Your task to perform on an android device: choose inbox layout in the gmail app Image 0: 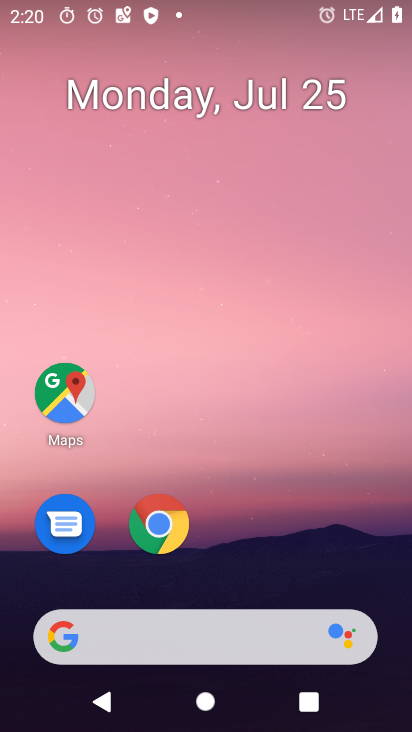
Step 0: press home button
Your task to perform on an android device: choose inbox layout in the gmail app Image 1: 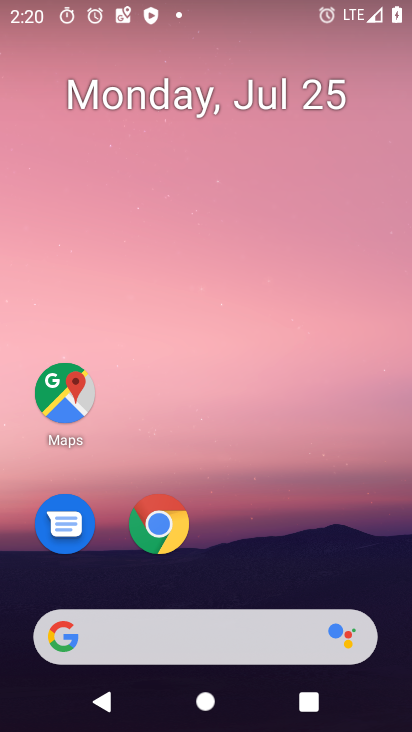
Step 1: drag from (257, 587) to (113, 0)
Your task to perform on an android device: choose inbox layout in the gmail app Image 2: 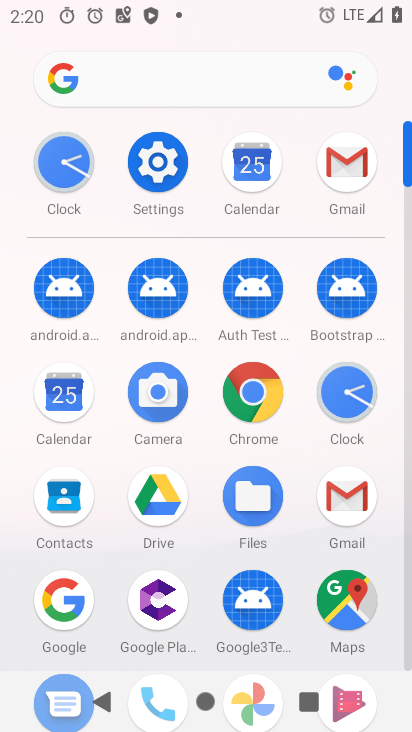
Step 2: click (361, 176)
Your task to perform on an android device: choose inbox layout in the gmail app Image 3: 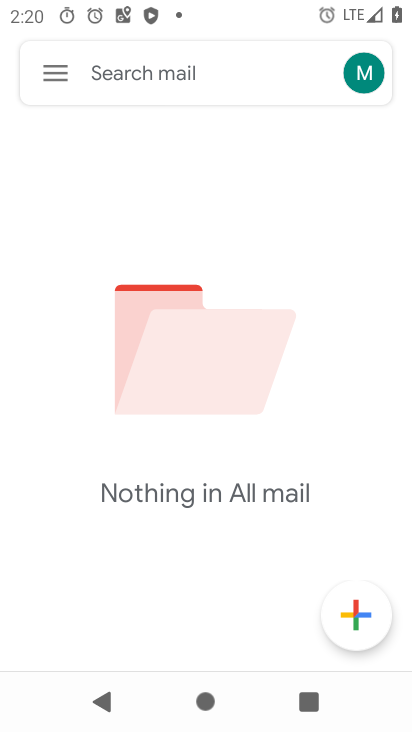
Step 3: click (61, 60)
Your task to perform on an android device: choose inbox layout in the gmail app Image 4: 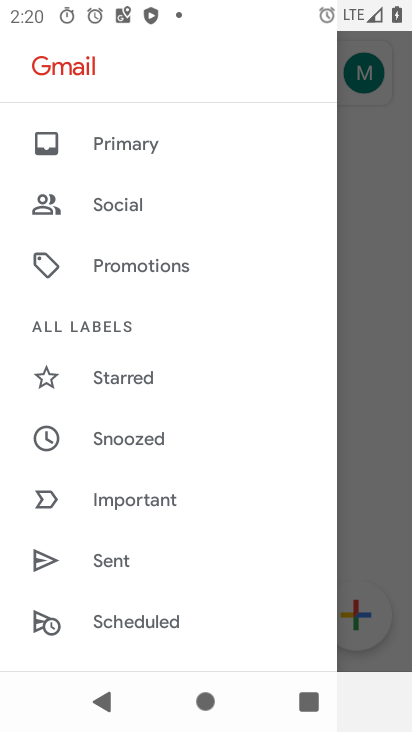
Step 4: drag from (208, 590) to (86, 32)
Your task to perform on an android device: choose inbox layout in the gmail app Image 5: 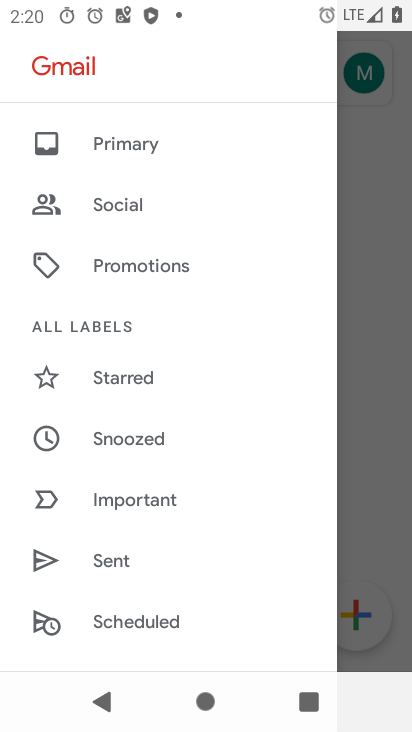
Step 5: drag from (257, 626) to (111, 2)
Your task to perform on an android device: choose inbox layout in the gmail app Image 6: 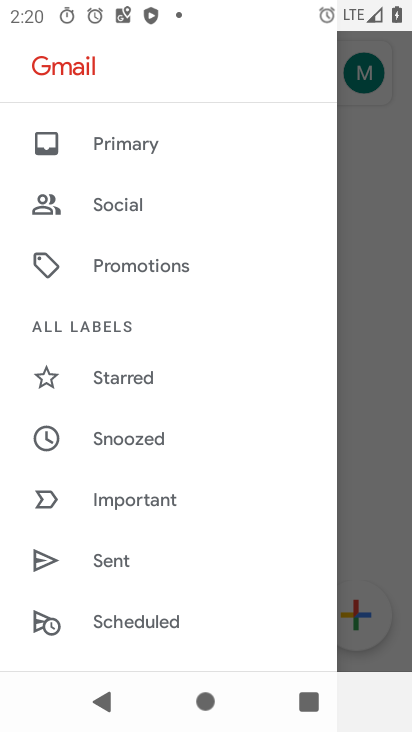
Step 6: drag from (261, 628) to (248, 0)
Your task to perform on an android device: choose inbox layout in the gmail app Image 7: 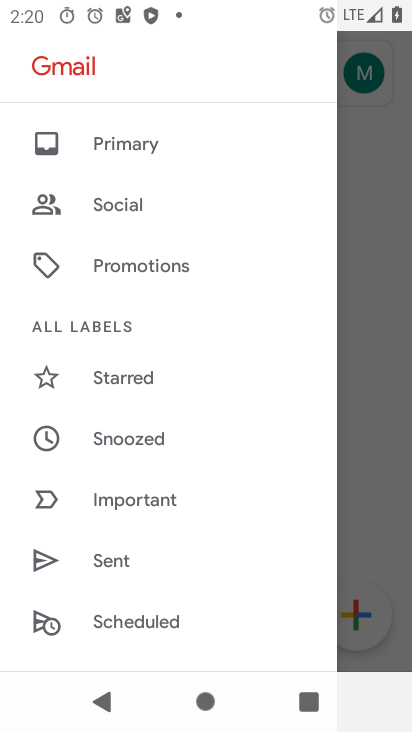
Step 7: drag from (265, 598) to (120, 18)
Your task to perform on an android device: choose inbox layout in the gmail app Image 8: 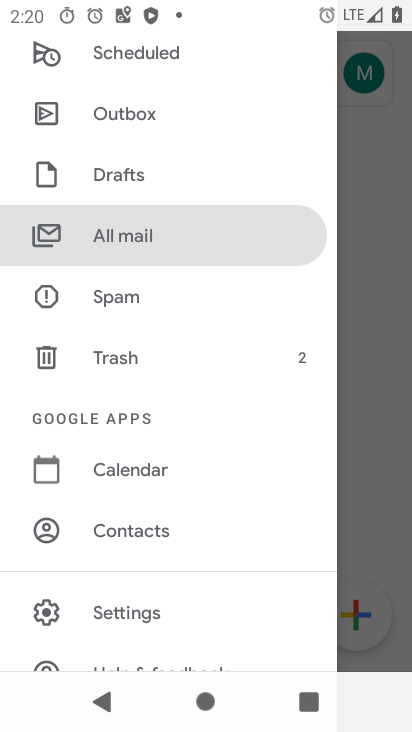
Step 8: click (106, 614)
Your task to perform on an android device: choose inbox layout in the gmail app Image 9: 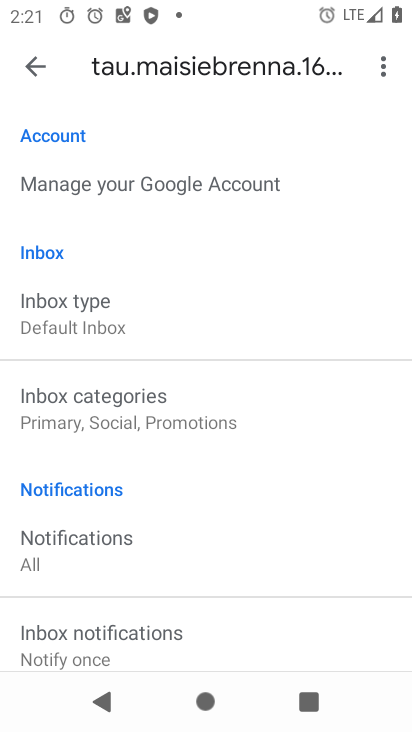
Step 9: click (72, 325)
Your task to perform on an android device: choose inbox layout in the gmail app Image 10: 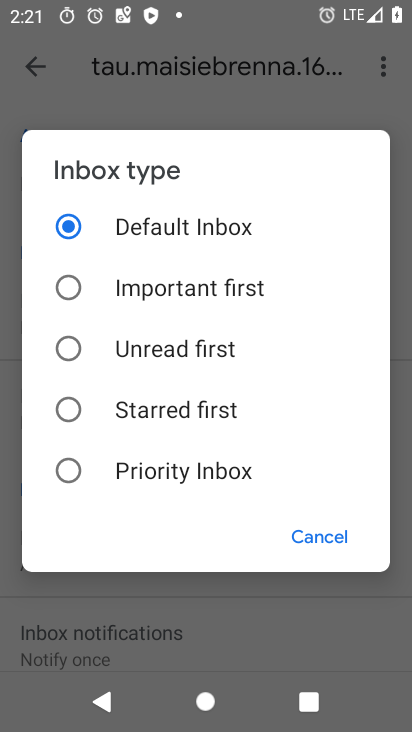
Step 10: click (63, 282)
Your task to perform on an android device: choose inbox layout in the gmail app Image 11: 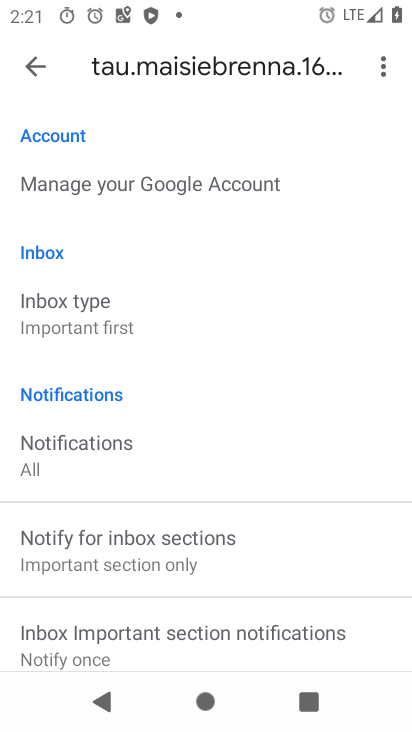
Step 11: task complete